Your task to perform on an android device: turn on priority inbox in the gmail app Image 0: 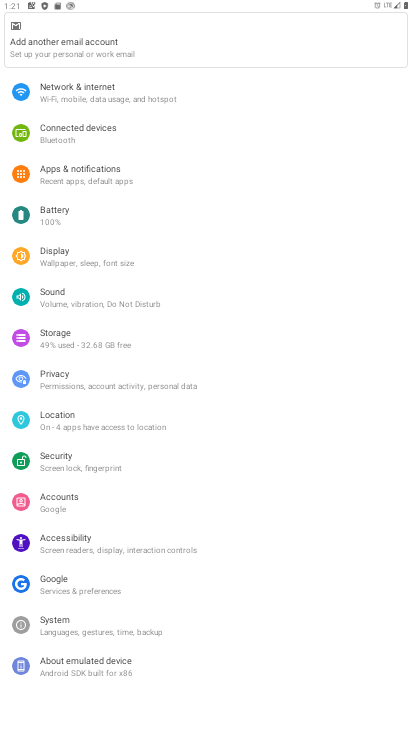
Step 0: press home button
Your task to perform on an android device: turn on priority inbox in the gmail app Image 1: 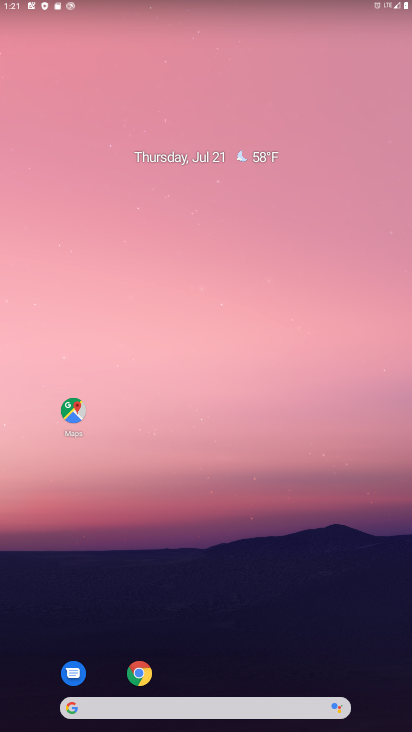
Step 1: drag from (197, 664) to (197, 211)
Your task to perform on an android device: turn on priority inbox in the gmail app Image 2: 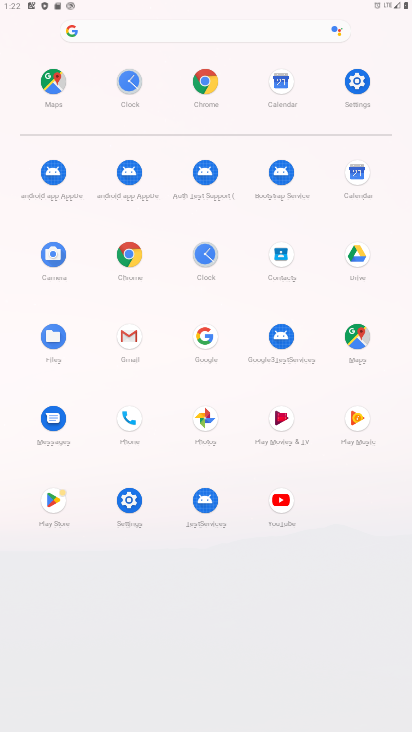
Step 2: click (135, 335)
Your task to perform on an android device: turn on priority inbox in the gmail app Image 3: 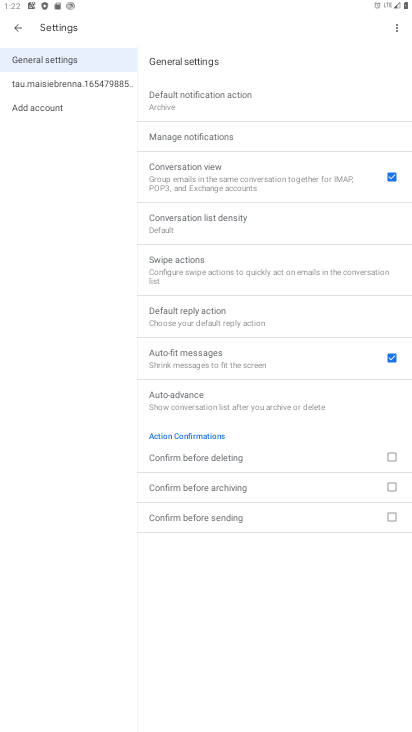
Step 3: click (75, 77)
Your task to perform on an android device: turn on priority inbox in the gmail app Image 4: 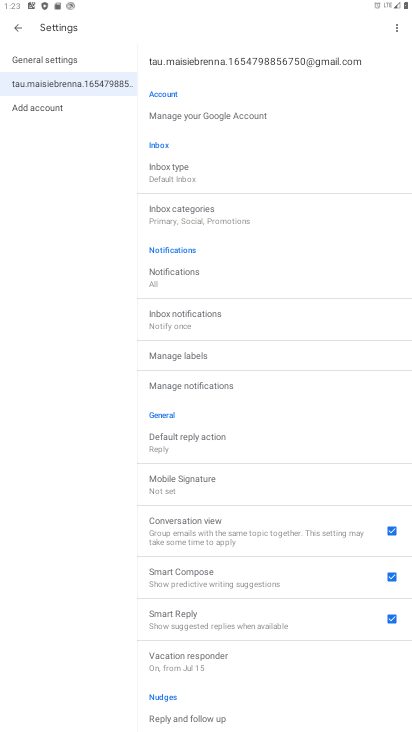
Step 4: click (225, 174)
Your task to perform on an android device: turn on priority inbox in the gmail app Image 5: 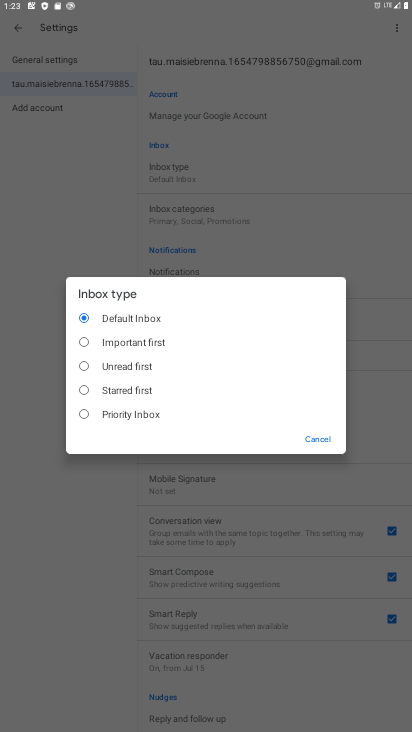
Step 5: click (132, 419)
Your task to perform on an android device: turn on priority inbox in the gmail app Image 6: 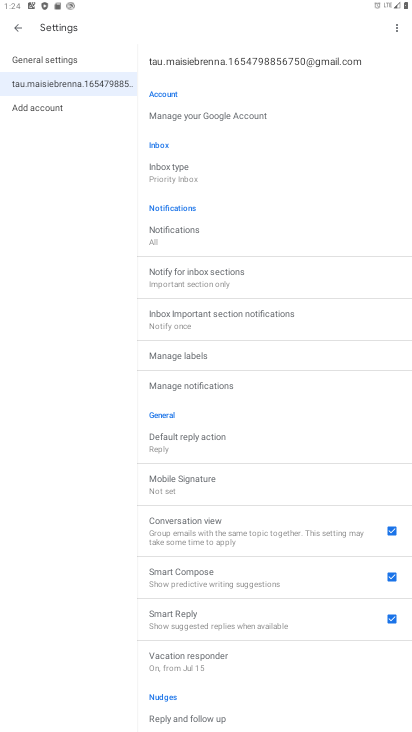
Step 6: click (192, 170)
Your task to perform on an android device: turn on priority inbox in the gmail app Image 7: 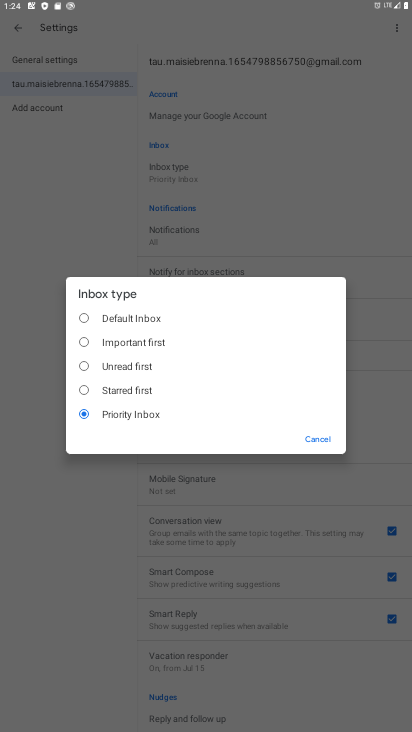
Step 7: task complete